Your task to perform on an android device: Search for vegetarian restaurants on Maps Image 0: 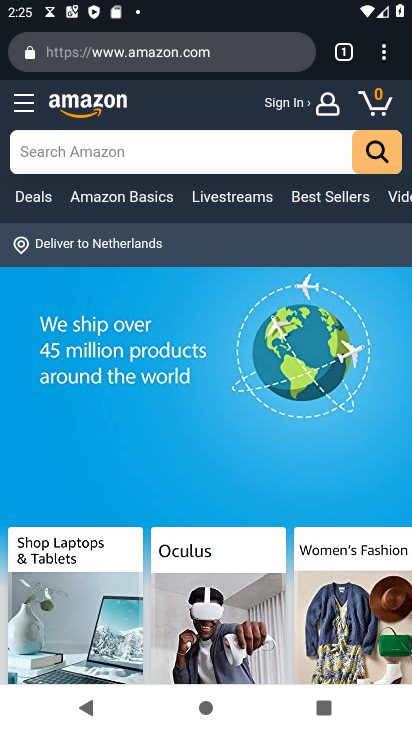
Step 0: press home button
Your task to perform on an android device: Search for vegetarian restaurants on Maps Image 1: 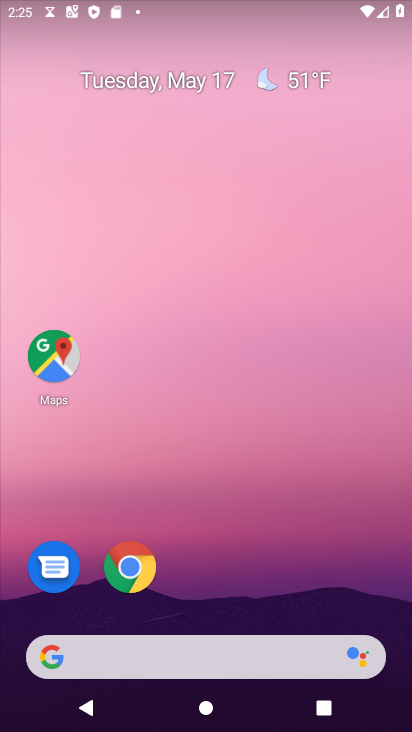
Step 1: click (61, 358)
Your task to perform on an android device: Search for vegetarian restaurants on Maps Image 2: 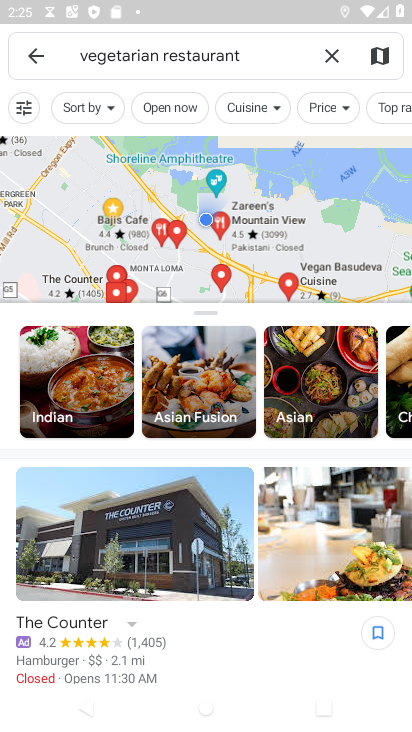
Step 2: task complete